Your task to perform on an android device: Open Amazon Image 0: 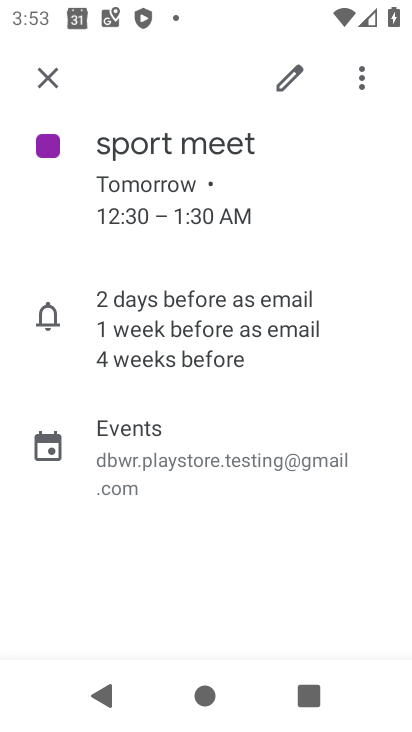
Step 0: press home button
Your task to perform on an android device: Open Amazon Image 1: 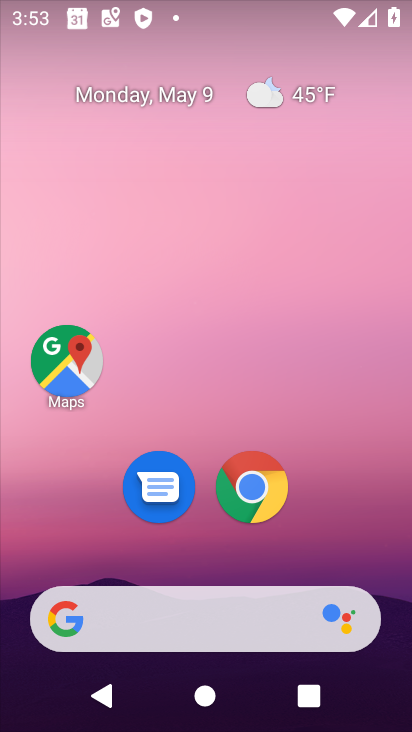
Step 1: click (268, 477)
Your task to perform on an android device: Open Amazon Image 2: 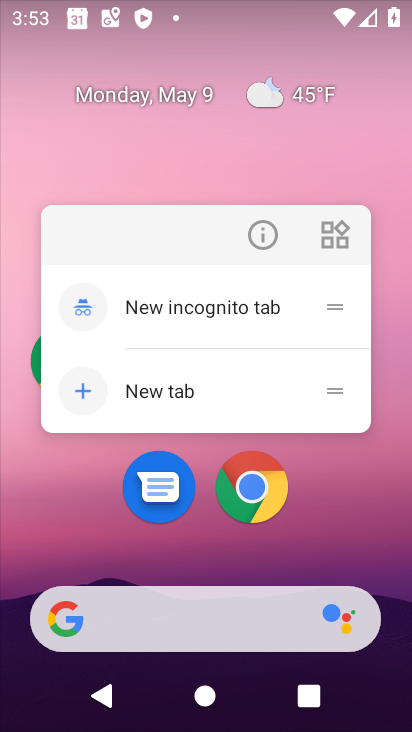
Step 2: click (257, 492)
Your task to perform on an android device: Open Amazon Image 3: 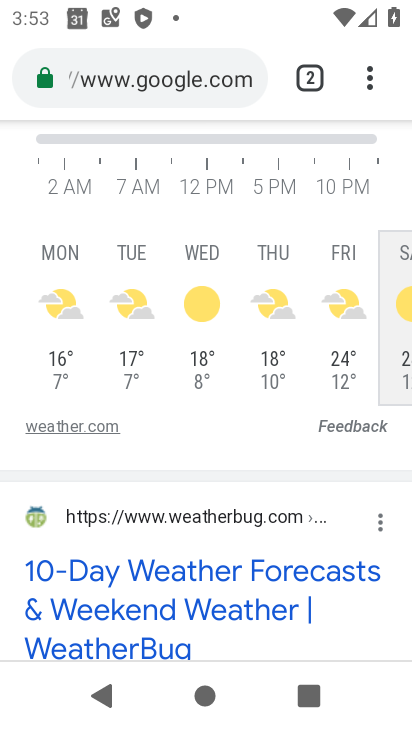
Step 3: drag from (172, 166) to (174, 578)
Your task to perform on an android device: Open Amazon Image 4: 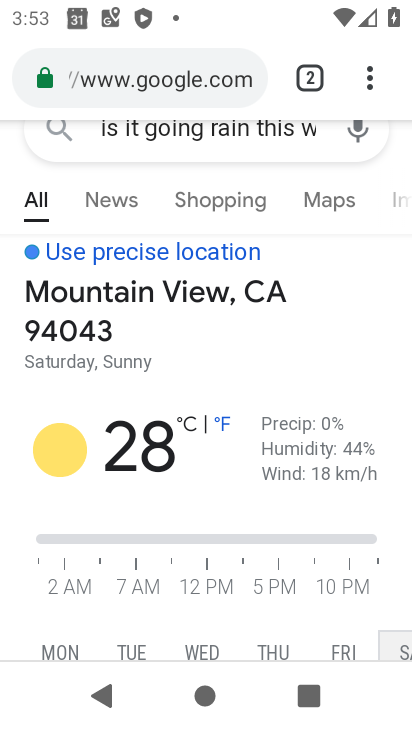
Step 4: drag from (331, 170) to (290, 555)
Your task to perform on an android device: Open Amazon Image 5: 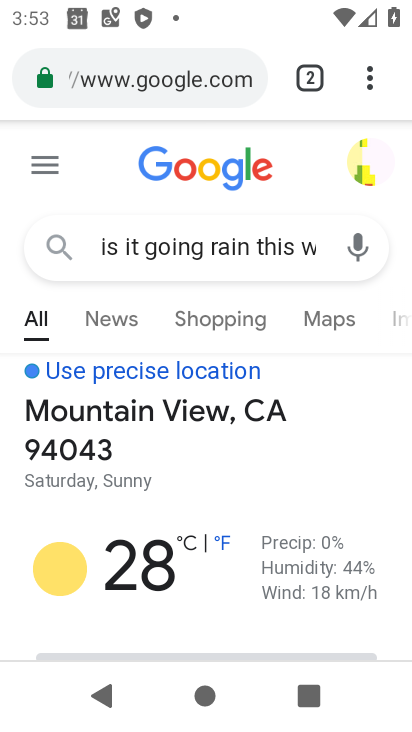
Step 5: click (307, 71)
Your task to perform on an android device: Open Amazon Image 6: 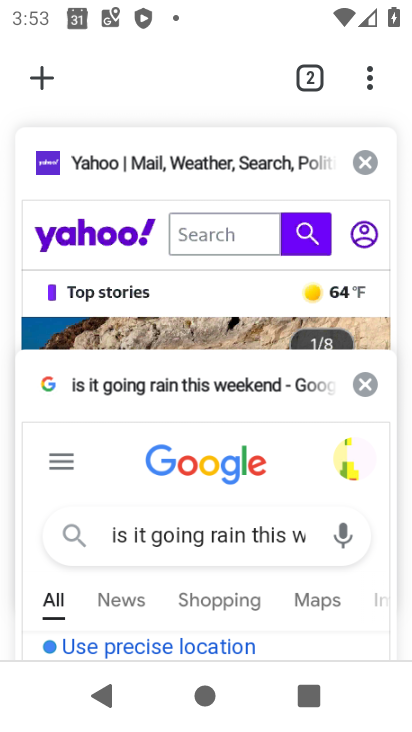
Step 6: click (31, 83)
Your task to perform on an android device: Open Amazon Image 7: 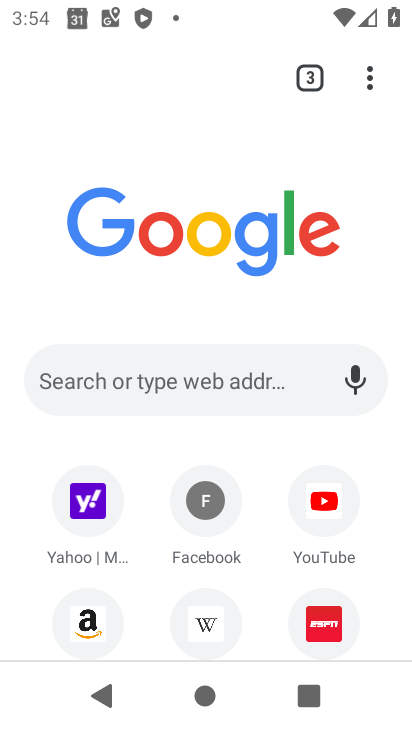
Step 7: click (69, 618)
Your task to perform on an android device: Open Amazon Image 8: 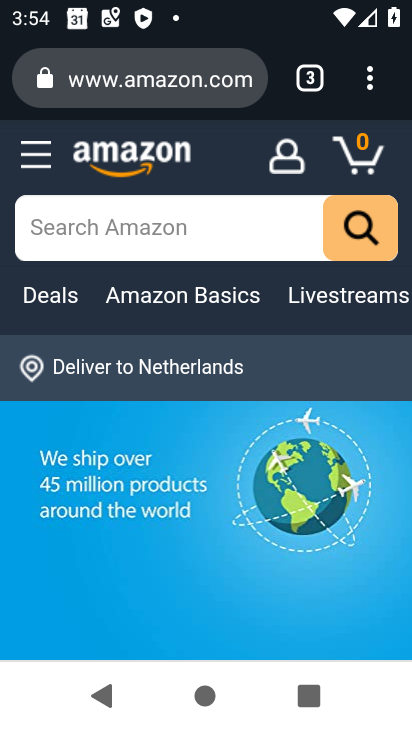
Step 8: task complete